Your task to perform on an android device: Open wifi settings Image 0: 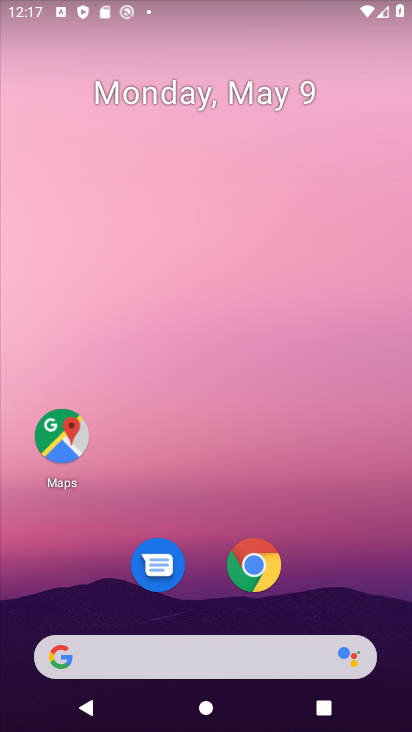
Step 0: click (264, 661)
Your task to perform on an android device: Open wifi settings Image 1: 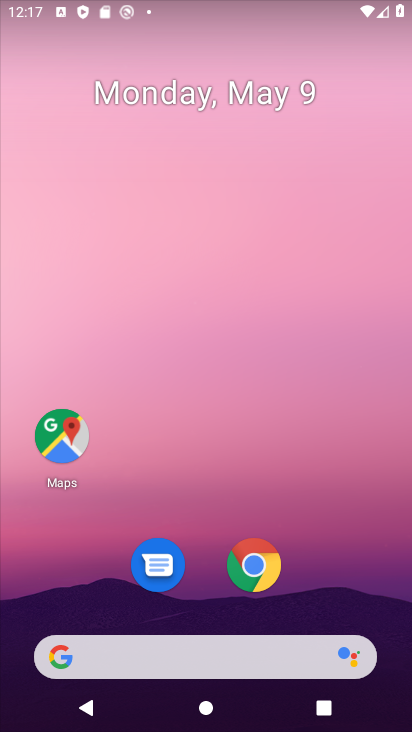
Step 1: drag from (266, 657) to (240, 121)
Your task to perform on an android device: Open wifi settings Image 2: 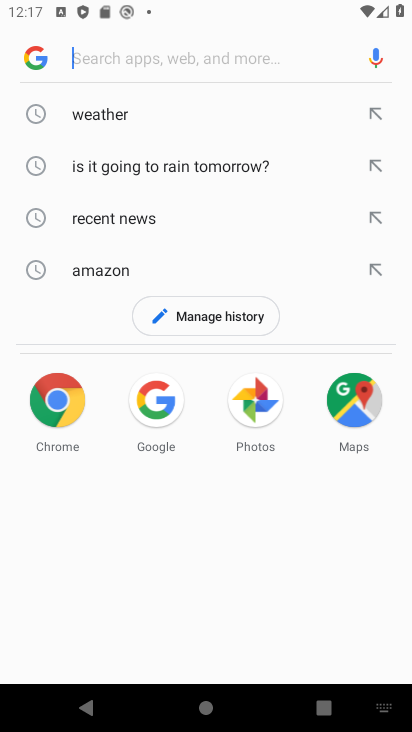
Step 2: press home button
Your task to perform on an android device: Open wifi settings Image 3: 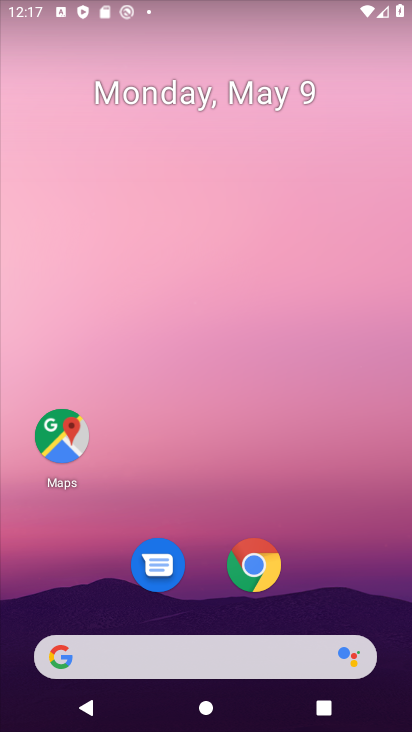
Step 3: drag from (223, 652) to (163, 97)
Your task to perform on an android device: Open wifi settings Image 4: 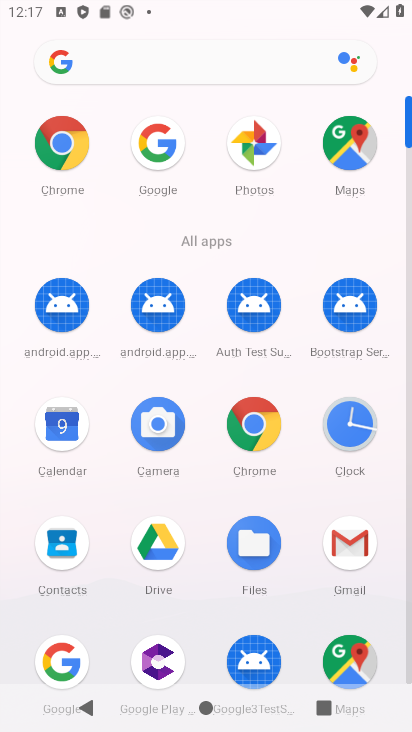
Step 4: click (410, 443)
Your task to perform on an android device: Open wifi settings Image 5: 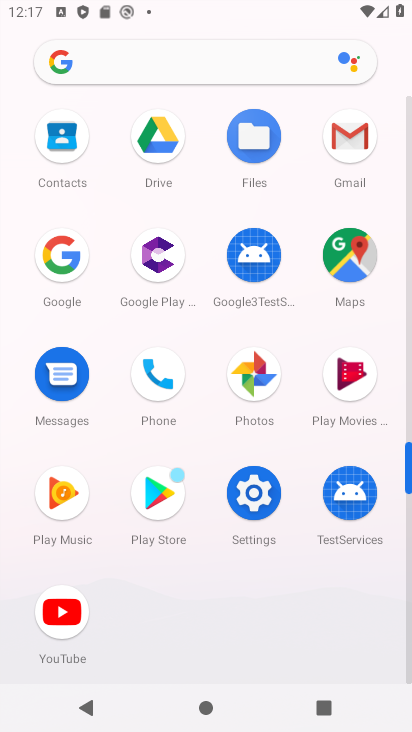
Step 5: click (246, 517)
Your task to perform on an android device: Open wifi settings Image 6: 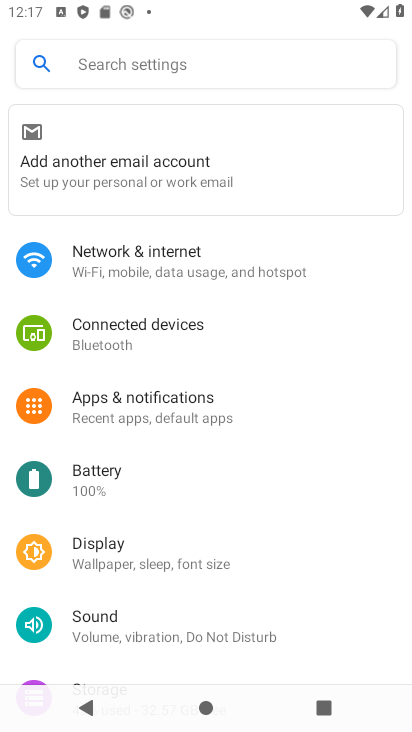
Step 6: click (175, 263)
Your task to perform on an android device: Open wifi settings Image 7: 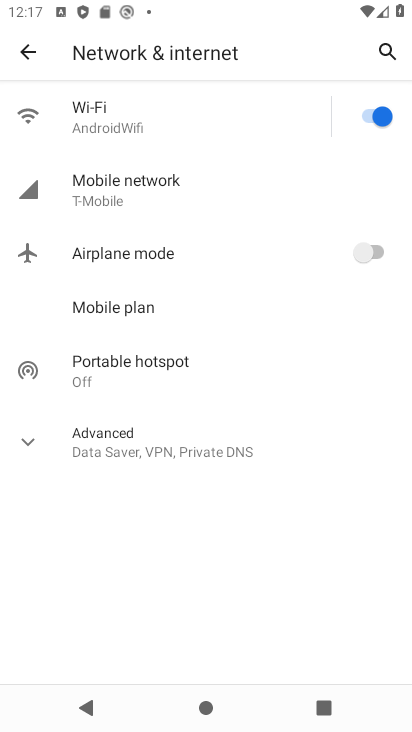
Step 7: click (210, 135)
Your task to perform on an android device: Open wifi settings Image 8: 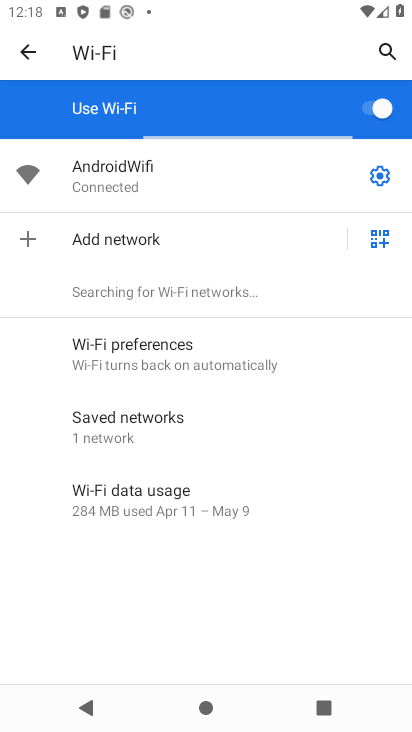
Step 8: task complete